Your task to perform on an android device: Open Google Chrome and click the shortcut for Amazon.com Image 0: 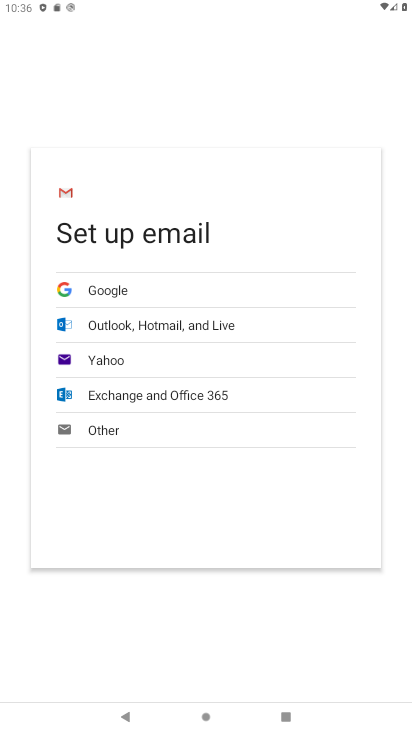
Step 0: press back button
Your task to perform on an android device: Open Google Chrome and click the shortcut for Amazon.com Image 1: 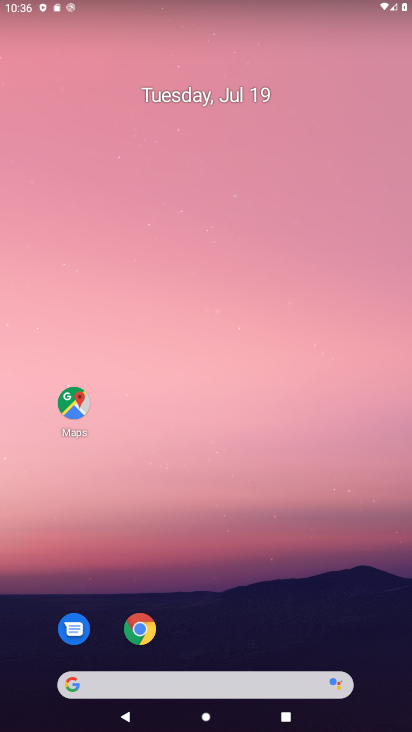
Step 1: drag from (210, 583) to (213, 278)
Your task to perform on an android device: Open Google Chrome and click the shortcut for Amazon.com Image 2: 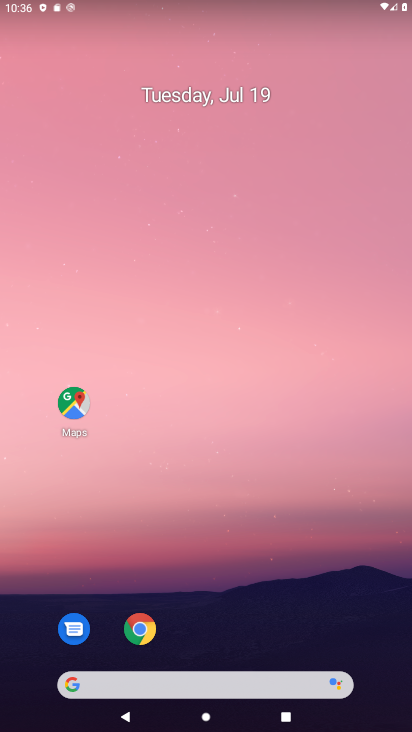
Step 2: drag from (237, 486) to (237, 322)
Your task to perform on an android device: Open Google Chrome and click the shortcut for Amazon.com Image 3: 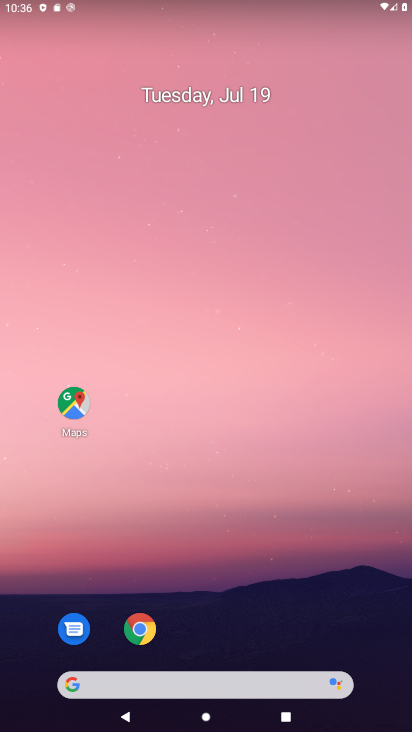
Step 3: drag from (251, 617) to (251, 277)
Your task to perform on an android device: Open Google Chrome and click the shortcut for Amazon.com Image 4: 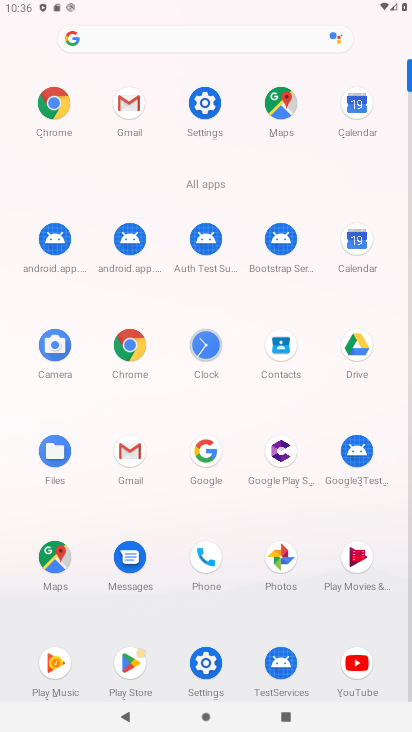
Step 4: click (54, 104)
Your task to perform on an android device: Open Google Chrome and click the shortcut for Amazon.com Image 5: 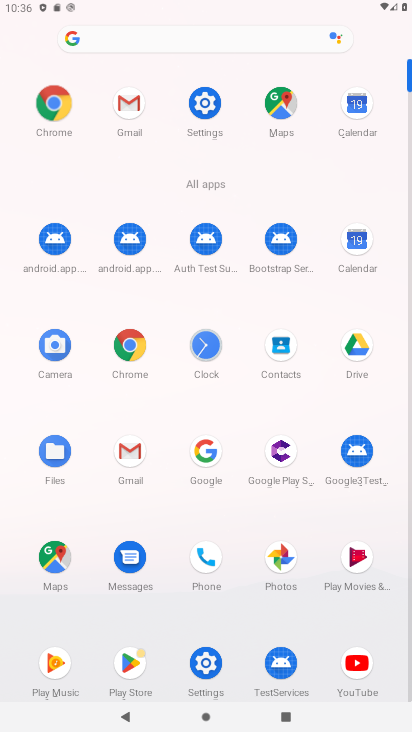
Step 5: click (54, 103)
Your task to perform on an android device: Open Google Chrome and click the shortcut for Amazon.com Image 6: 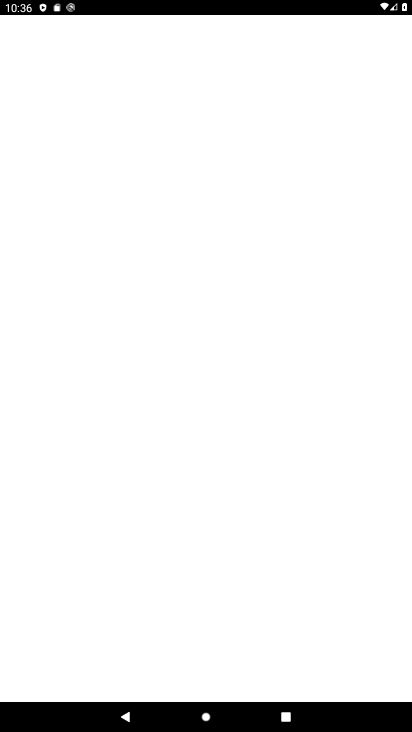
Step 6: click (54, 103)
Your task to perform on an android device: Open Google Chrome and click the shortcut for Amazon.com Image 7: 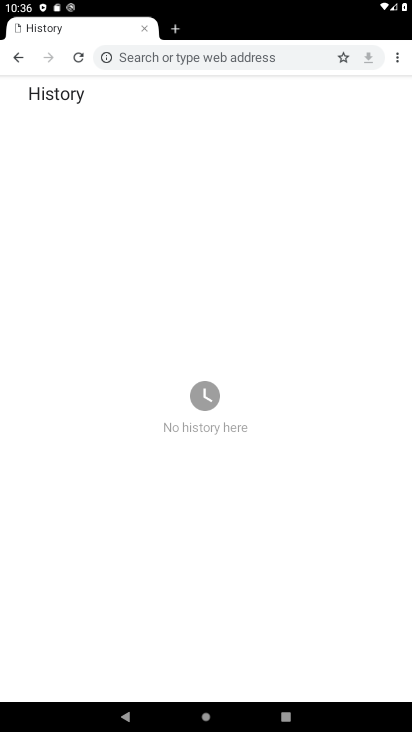
Step 7: drag from (396, 58) to (288, 275)
Your task to perform on an android device: Open Google Chrome and click the shortcut for Amazon.com Image 8: 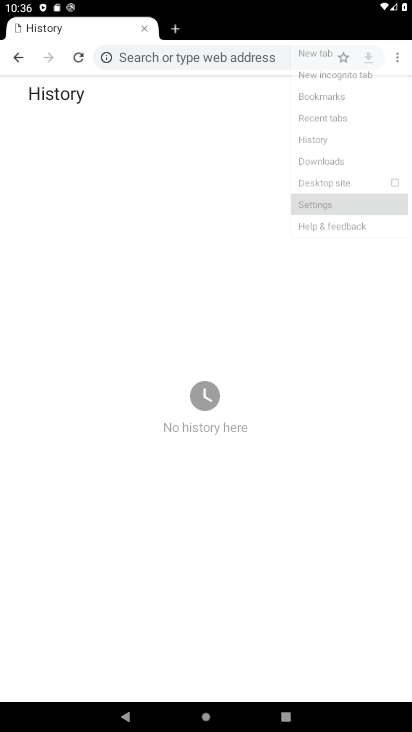
Step 8: click (288, 275)
Your task to perform on an android device: Open Google Chrome and click the shortcut for Amazon.com Image 9: 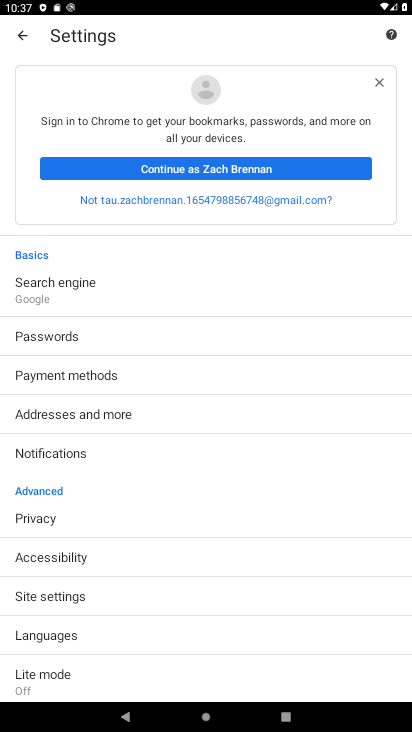
Step 9: drag from (128, 569) to (89, 328)
Your task to perform on an android device: Open Google Chrome and click the shortcut for Amazon.com Image 10: 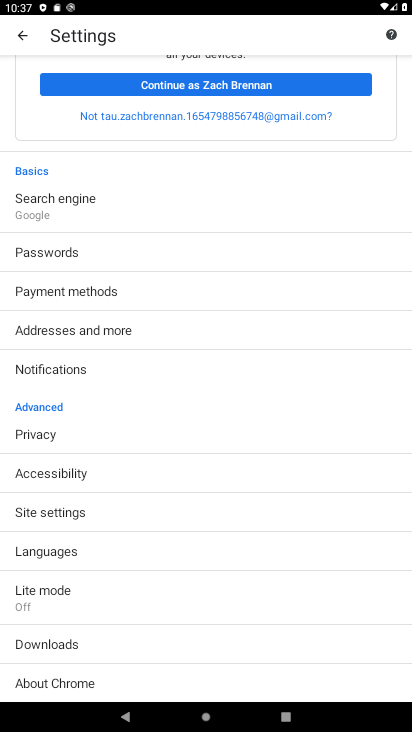
Step 10: drag from (55, 219) to (171, 518)
Your task to perform on an android device: Open Google Chrome and click the shortcut for Amazon.com Image 11: 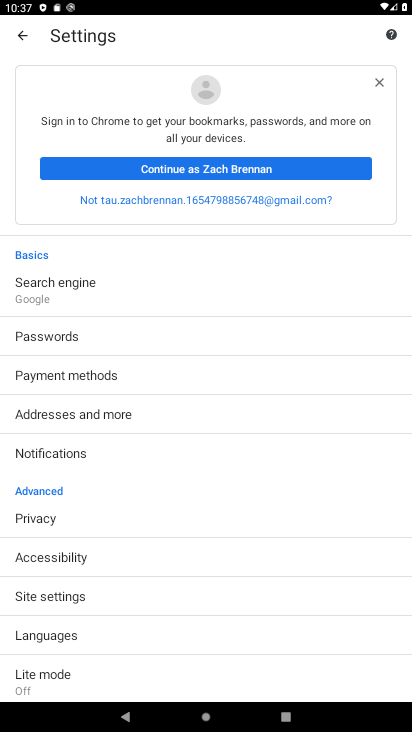
Step 11: click (17, 37)
Your task to perform on an android device: Open Google Chrome and click the shortcut for Amazon.com Image 12: 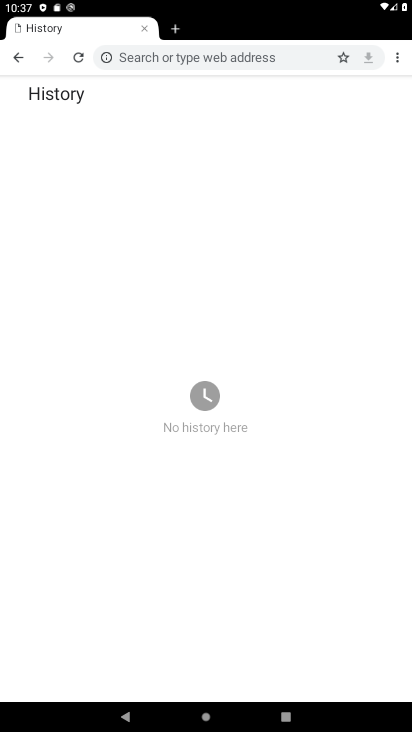
Step 12: press back button
Your task to perform on an android device: Open Google Chrome and click the shortcut for Amazon.com Image 13: 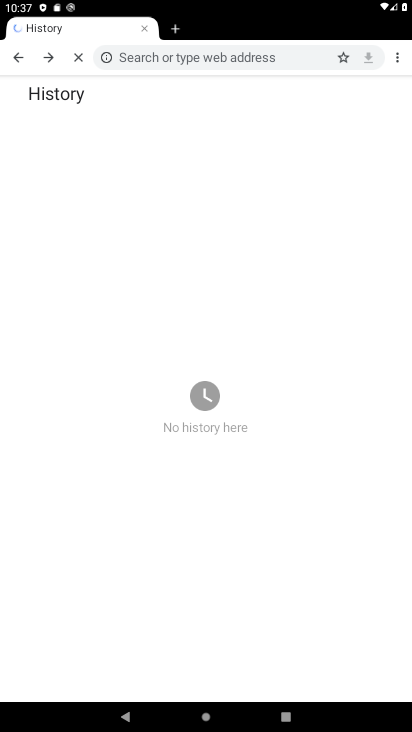
Step 13: press back button
Your task to perform on an android device: Open Google Chrome and click the shortcut for Amazon.com Image 14: 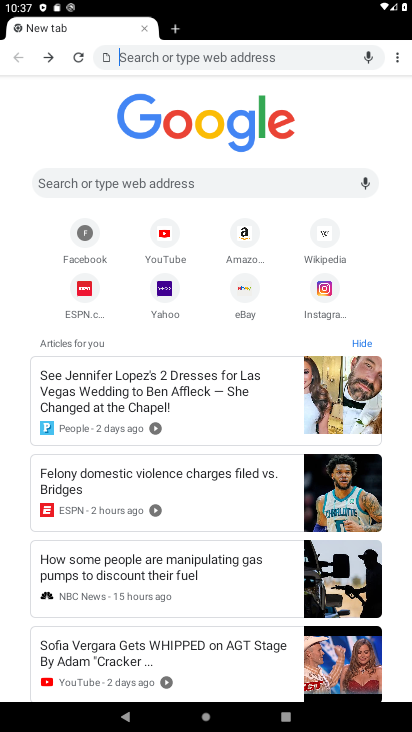
Step 14: click (240, 240)
Your task to perform on an android device: Open Google Chrome and click the shortcut for Amazon.com Image 15: 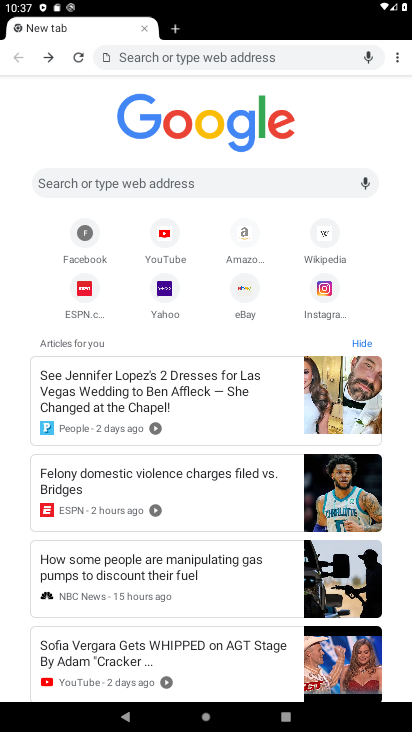
Step 15: click (240, 240)
Your task to perform on an android device: Open Google Chrome and click the shortcut for Amazon.com Image 16: 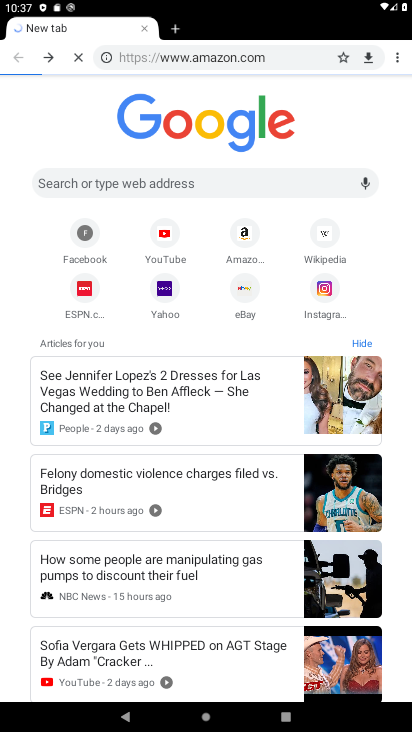
Step 16: click (240, 240)
Your task to perform on an android device: Open Google Chrome and click the shortcut for Amazon.com Image 17: 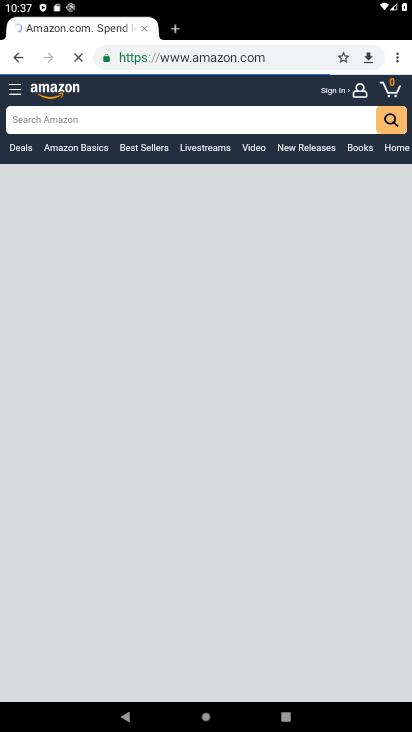
Step 17: task complete